Your task to perform on an android device: turn on javascript in the chrome app Image 0: 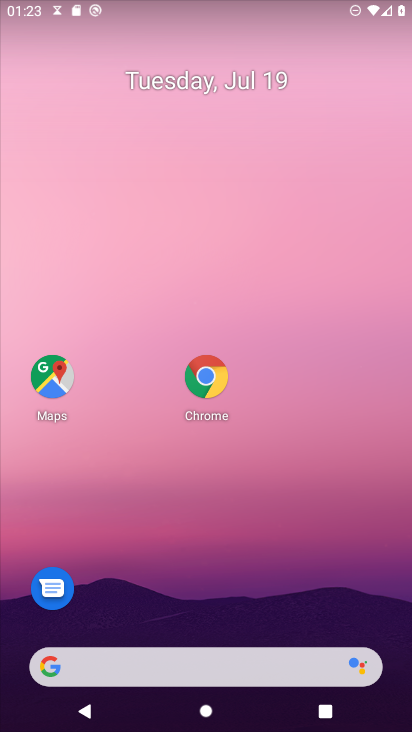
Step 0: press home button
Your task to perform on an android device: turn on javascript in the chrome app Image 1: 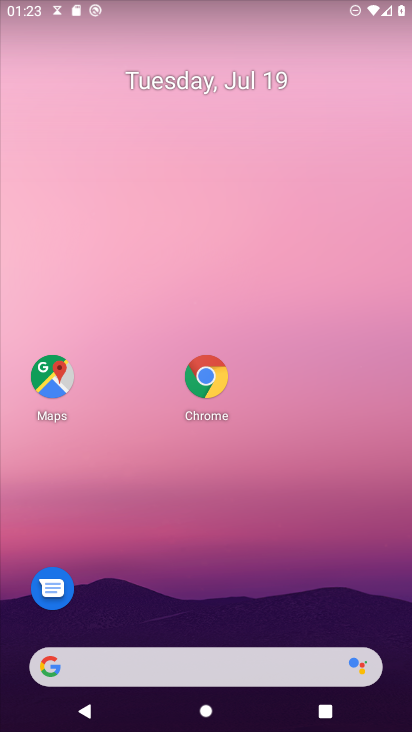
Step 1: drag from (298, 634) to (287, 12)
Your task to perform on an android device: turn on javascript in the chrome app Image 2: 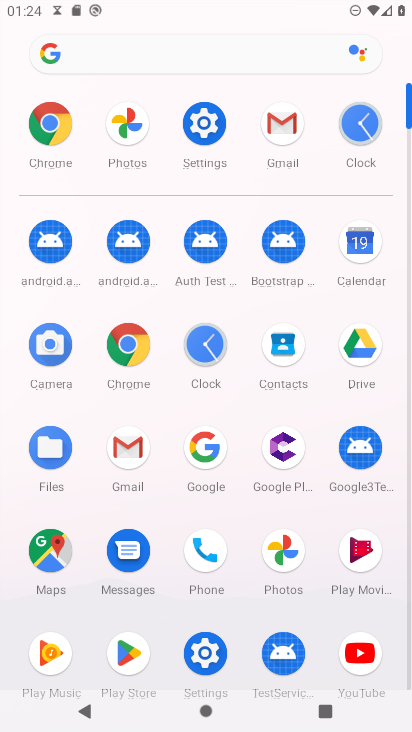
Step 2: click (54, 143)
Your task to perform on an android device: turn on javascript in the chrome app Image 3: 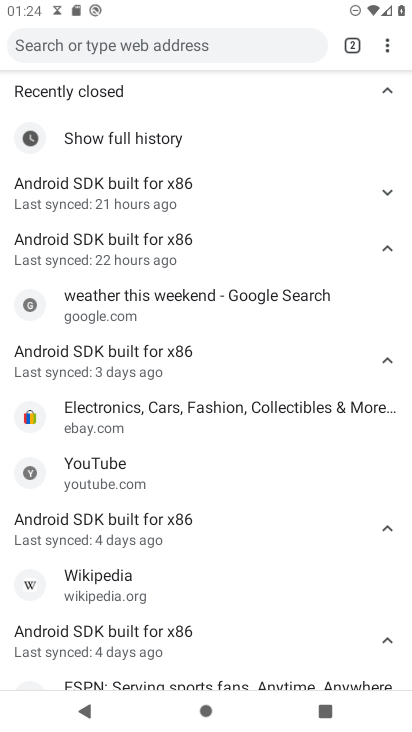
Step 3: drag from (385, 46) to (244, 385)
Your task to perform on an android device: turn on javascript in the chrome app Image 4: 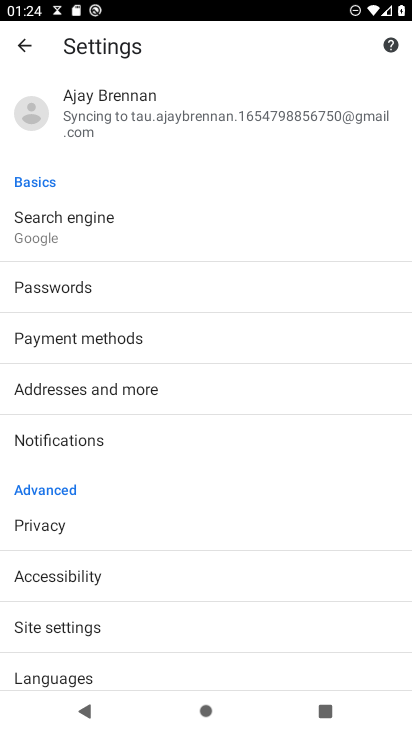
Step 4: click (50, 625)
Your task to perform on an android device: turn on javascript in the chrome app Image 5: 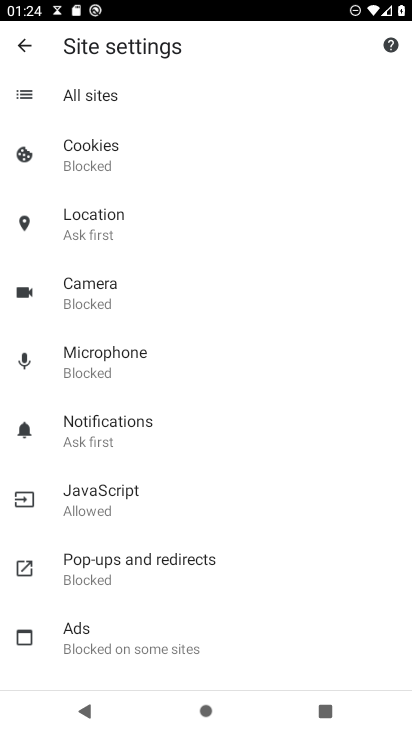
Step 5: click (82, 500)
Your task to perform on an android device: turn on javascript in the chrome app Image 6: 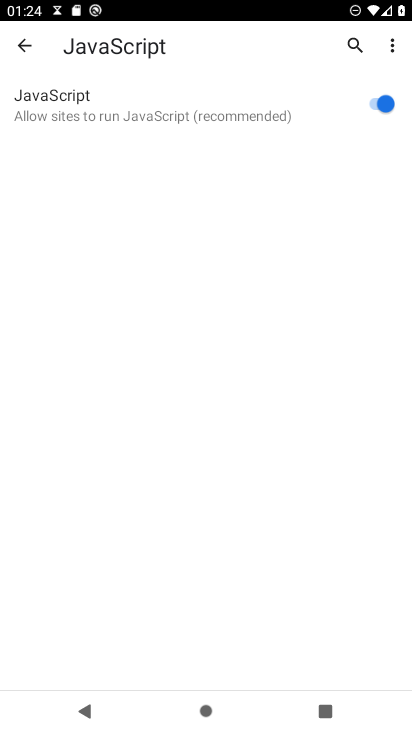
Step 6: task complete